Your task to perform on an android device: Open Chrome and go to settings Image 0: 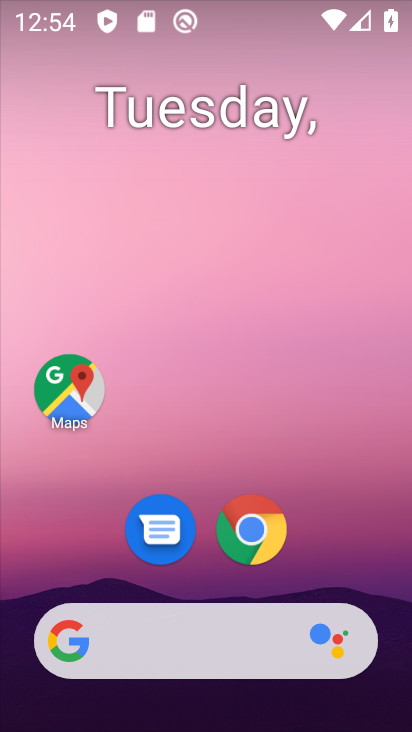
Step 0: drag from (363, 515) to (317, 173)
Your task to perform on an android device: Open Chrome and go to settings Image 1: 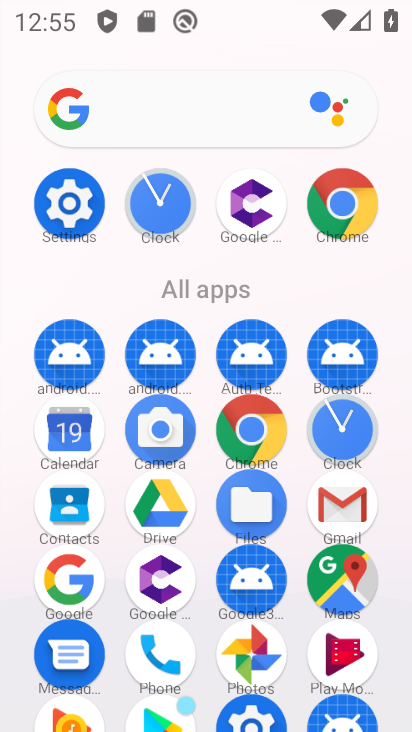
Step 1: click (342, 200)
Your task to perform on an android device: Open Chrome and go to settings Image 2: 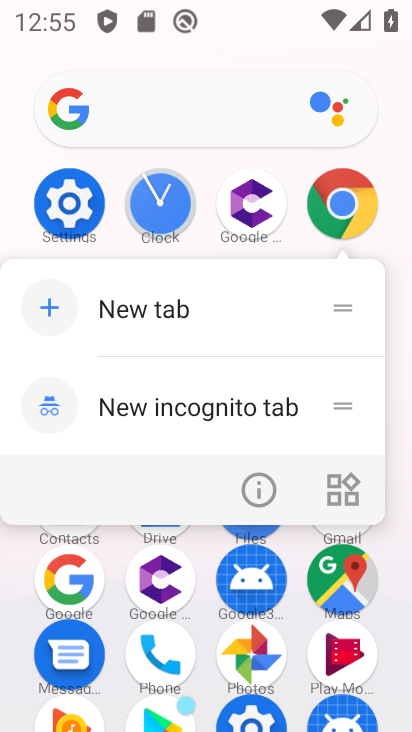
Step 2: click (342, 200)
Your task to perform on an android device: Open Chrome and go to settings Image 3: 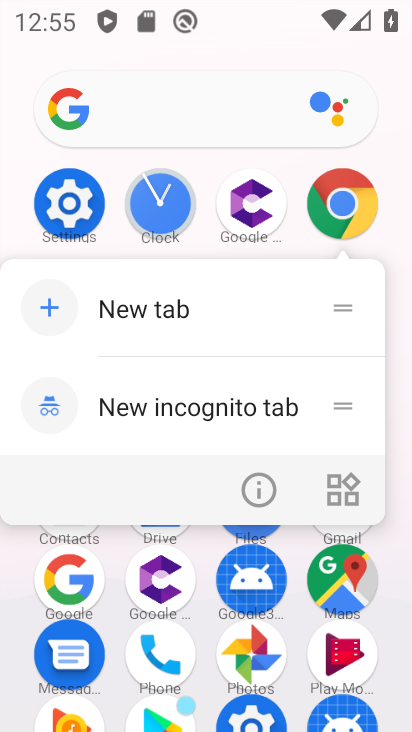
Step 3: click (342, 200)
Your task to perform on an android device: Open Chrome and go to settings Image 4: 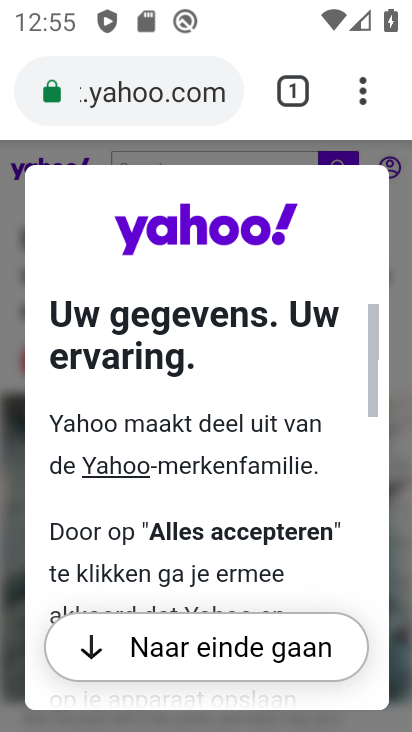
Step 4: click (366, 93)
Your task to perform on an android device: Open Chrome and go to settings Image 5: 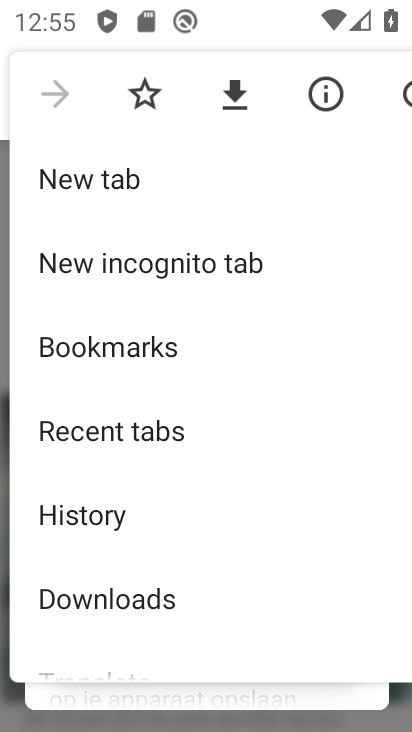
Step 5: drag from (248, 552) to (229, 237)
Your task to perform on an android device: Open Chrome and go to settings Image 6: 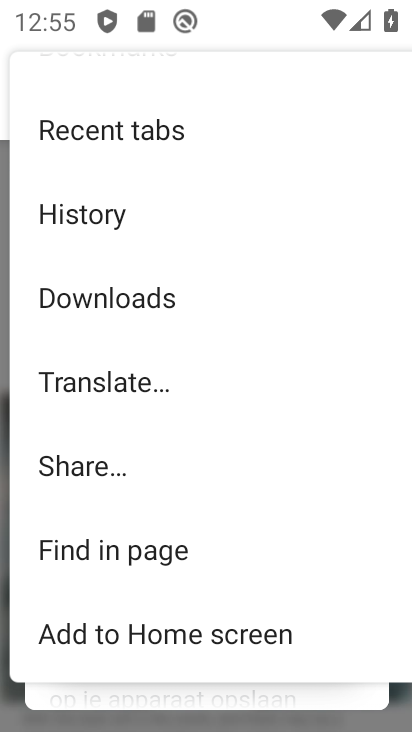
Step 6: drag from (250, 587) to (239, 321)
Your task to perform on an android device: Open Chrome and go to settings Image 7: 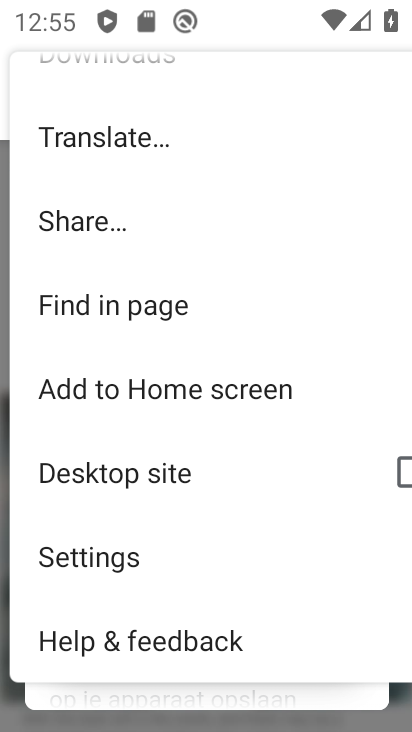
Step 7: click (242, 538)
Your task to perform on an android device: Open Chrome and go to settings Image 8: 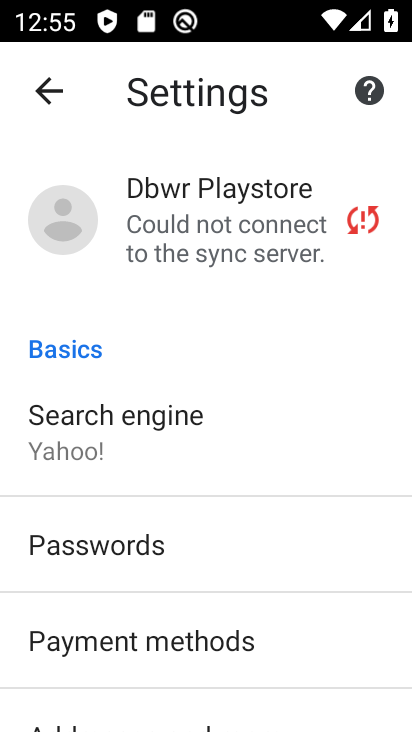
Step 8: task complete